Your task to perform on an android device: Is it going to rain this weekend? Image 0: 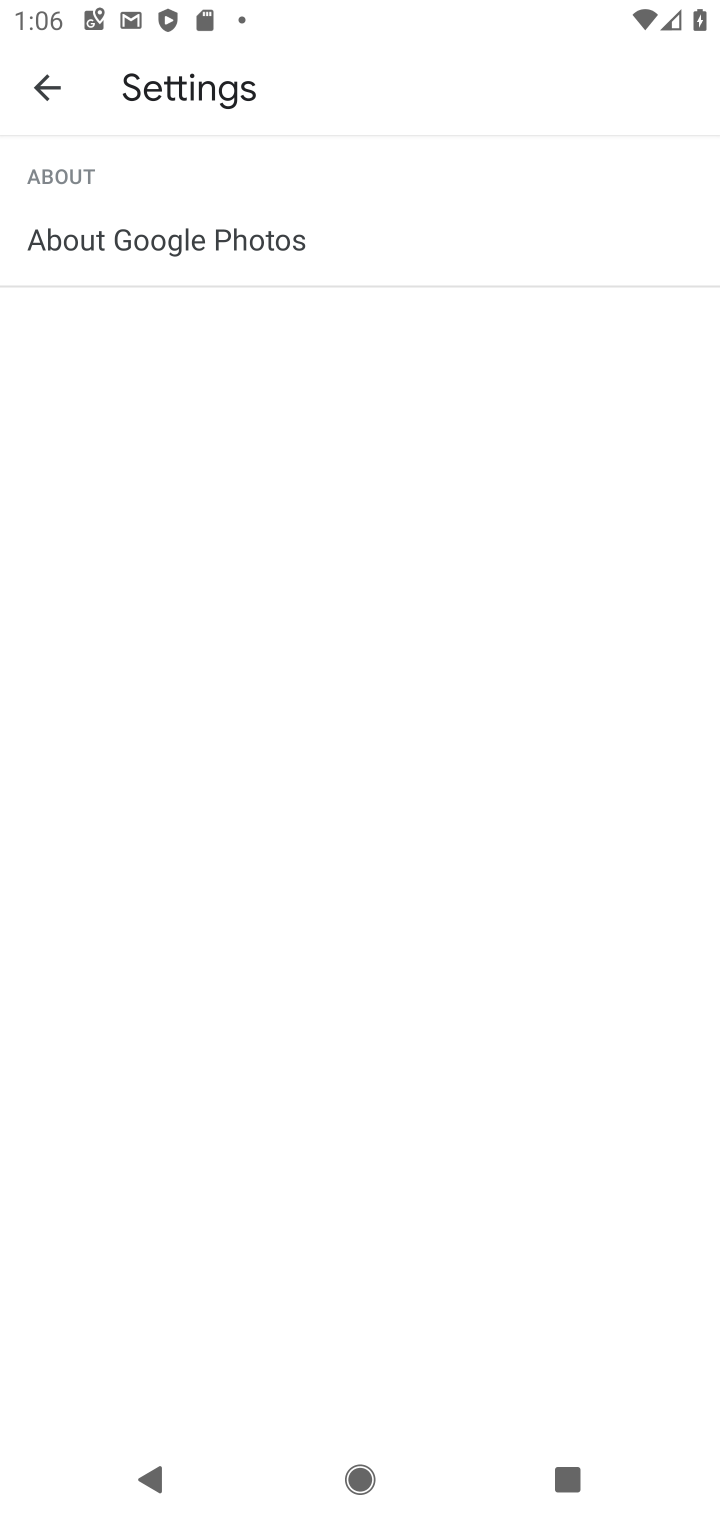
Step 0: press home button
Your task to perform on an android device: Is it going to rain this weekend? Image 1: 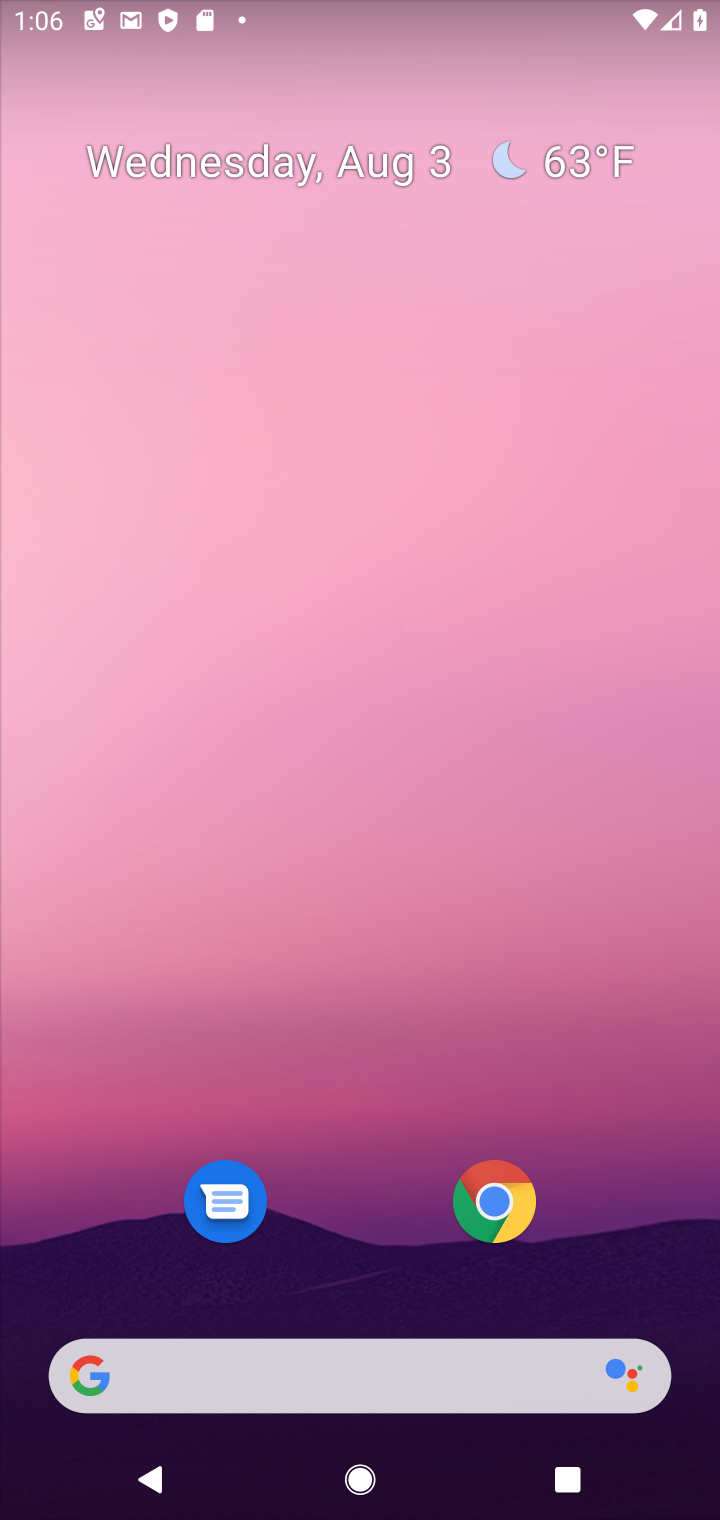
Step 1: click (292, 1335)
Your task to perform on an android device: Is it going to rain this weekend? Image 2: 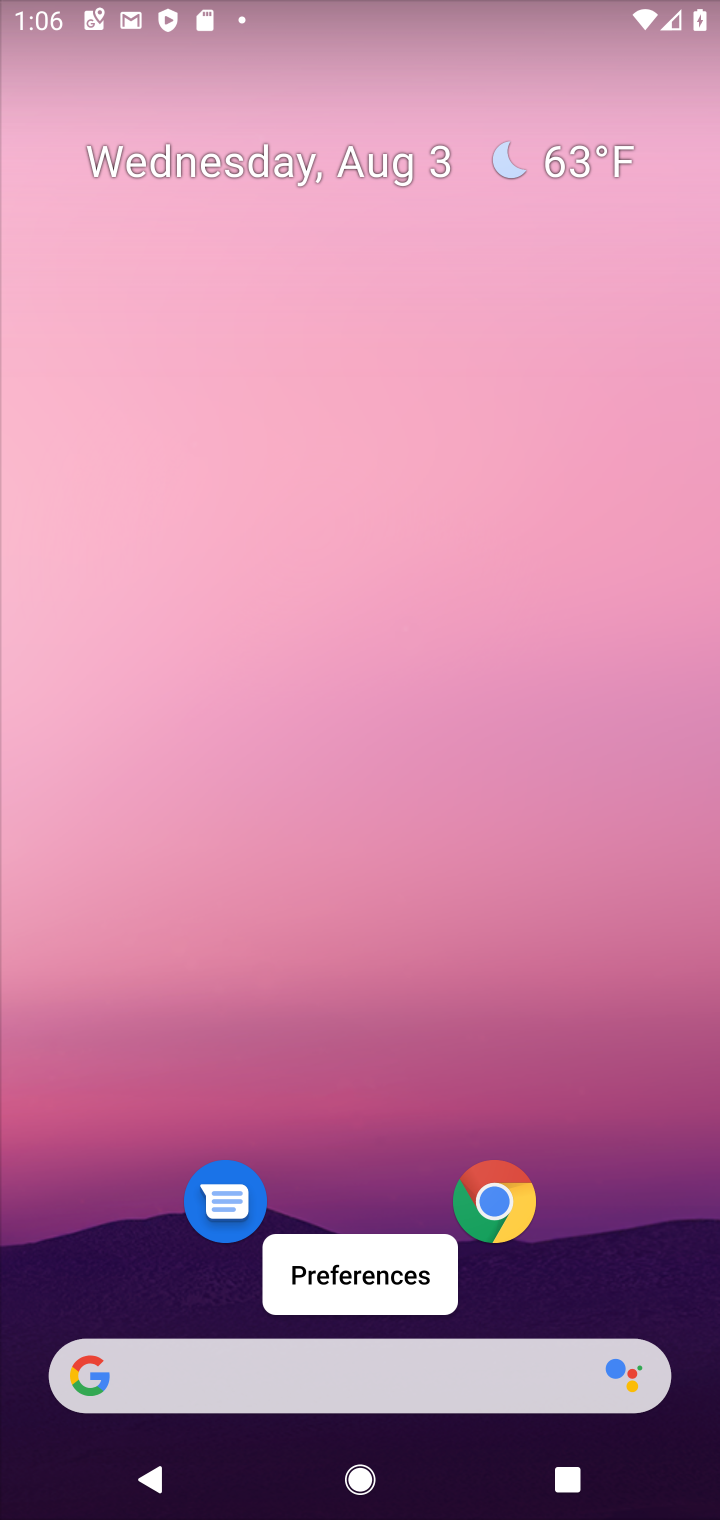
Step 2: click (263, 1374)
Your task to perform on an android device: Is it going to rain this weekend? Image 3: 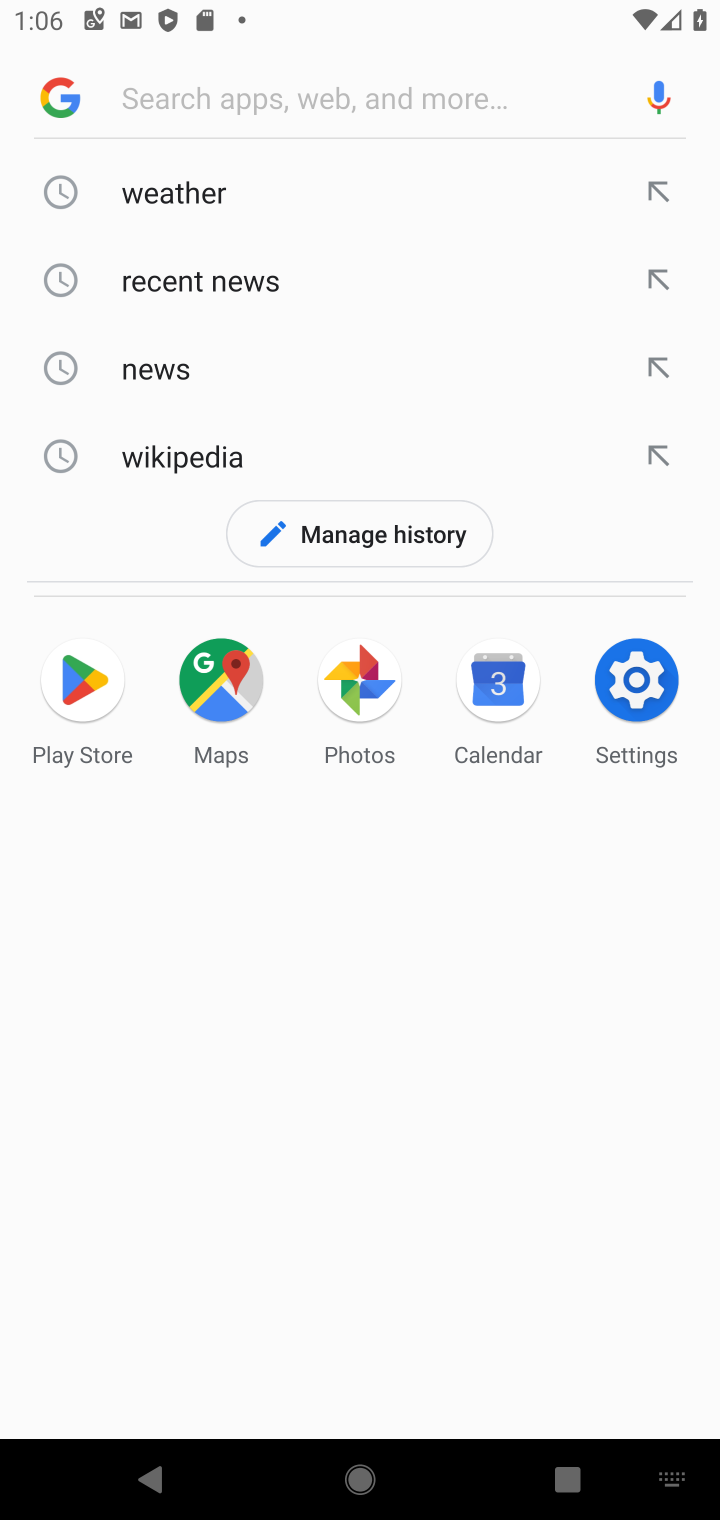
Step 3: click (135, 192)
Your task to perform on an android device: Is it going to rain this weekend? Image 4: 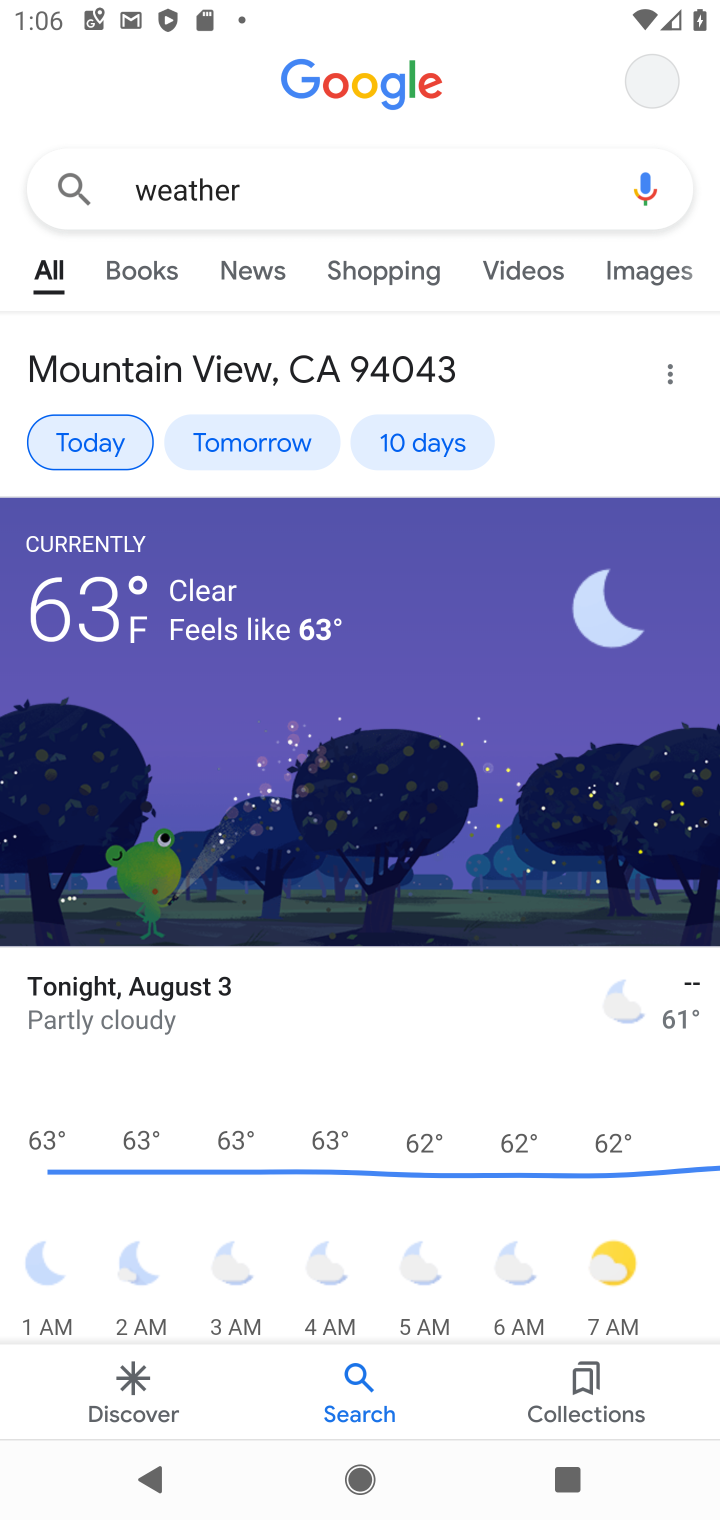
Step 4: click (423, 443)
Your task to perform on an android device: Is it going to rain this weekend? Image 5: 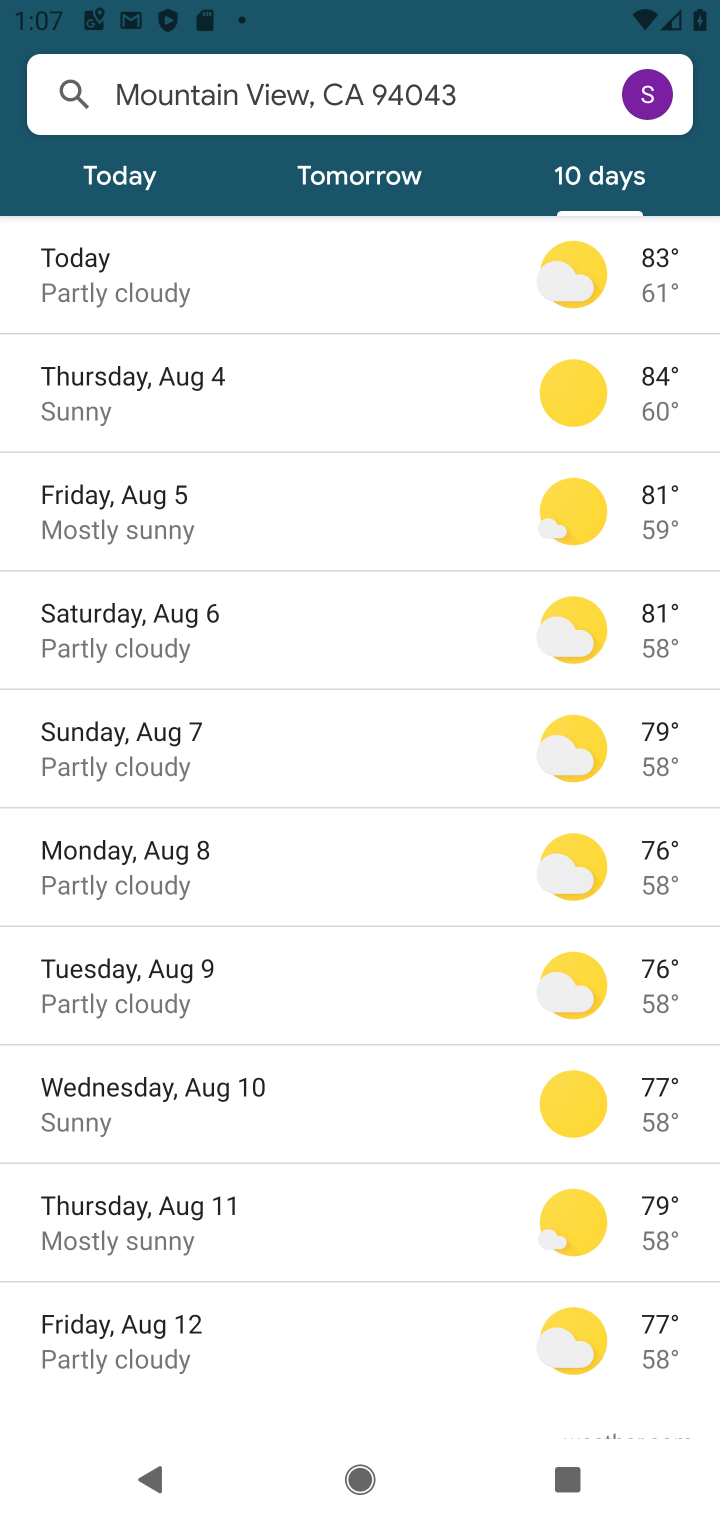
Step 5: click (178, 642)
Your task to perform on an android device: Is it going to rain this weekend? Image 6: 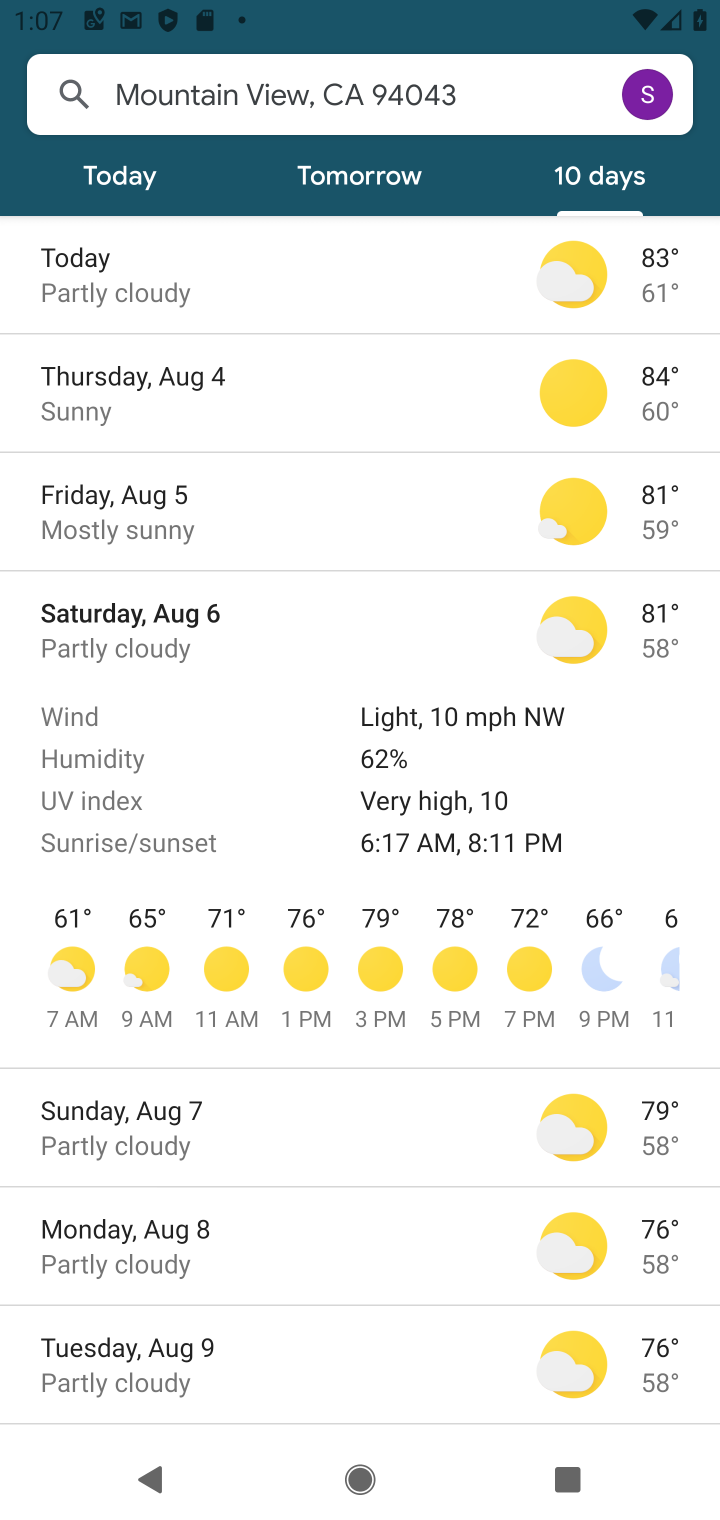
Step 6: task complete